Your task to perform on an android device: set the stopwatch Image 0: 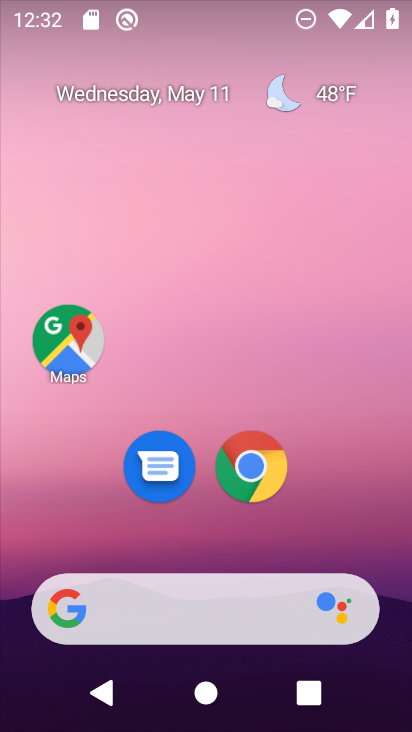
Step 0: press home button
Your task to perform on an android device: set the stopwatch Image 1: 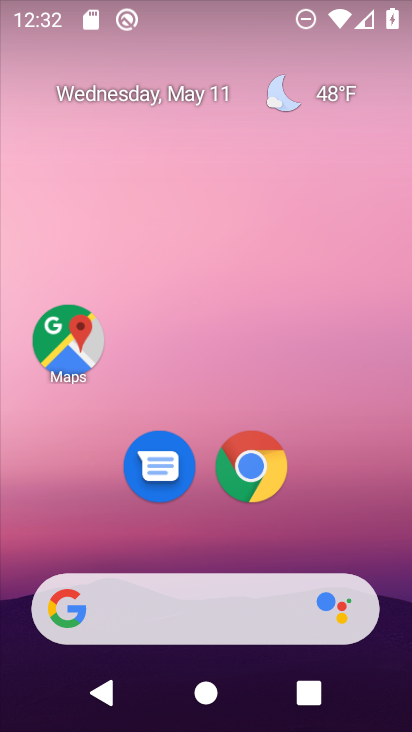
Step 1: drag from (207, 535) to (207, 17)
Your task to perform on an android device: set the stopwatch Image 2: 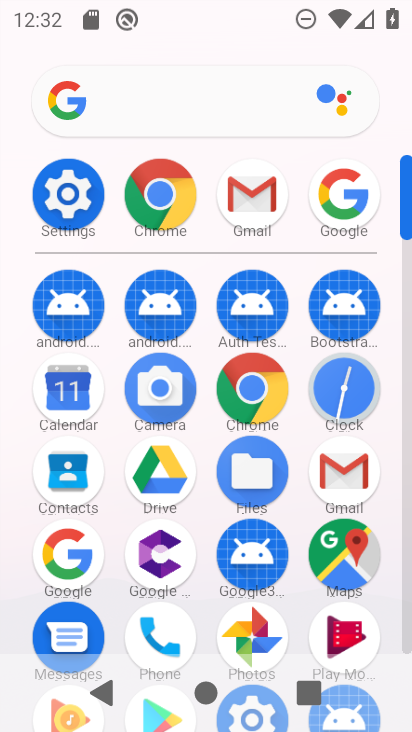
Step 2: click (342, 382)
Your task to perform on an android device: set the stopwatch Image 3: 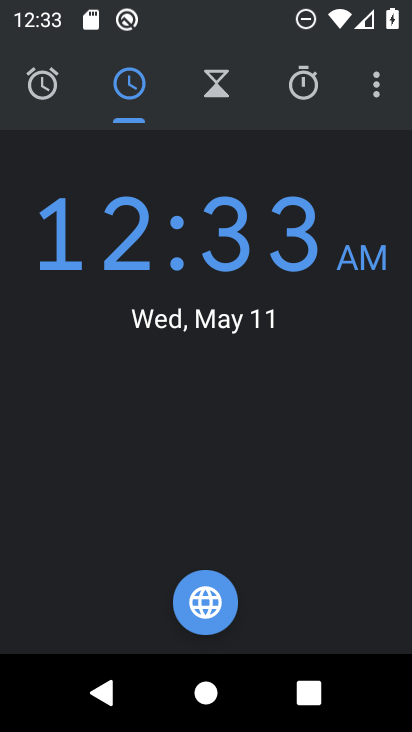
Step 3: click (308, 81)
Your task to perform on an android device: set the stopwatch Image 4: 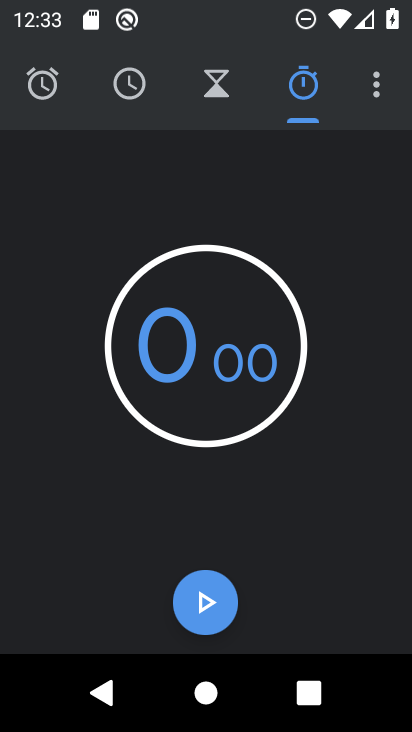
Step 4: click (208, 602)
Your task to perform on an android device: set the stopwatch Image 5: 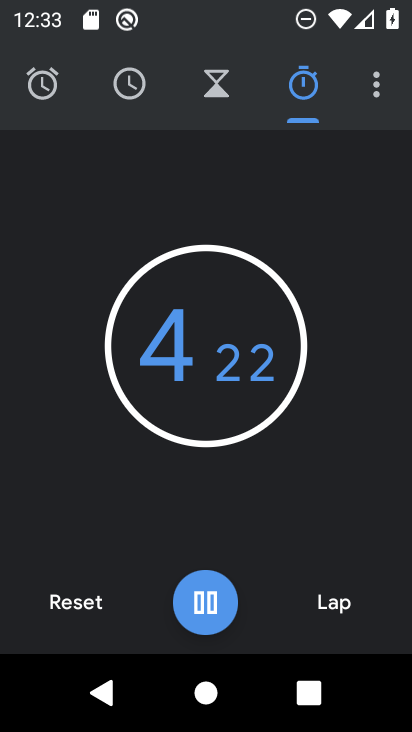
Step 5: task complete